Your task to perform on an android device: What's on my calendar tomorrow? Image 0: 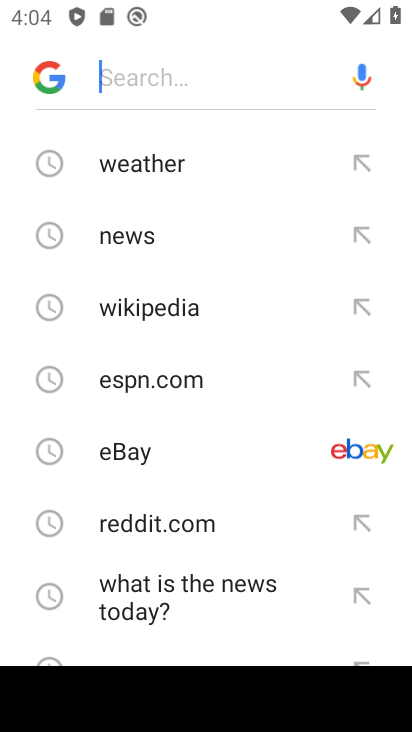
Step 0: press home button
Your task to perform on an android device: What's on my calendar tomorrow? Image 1: 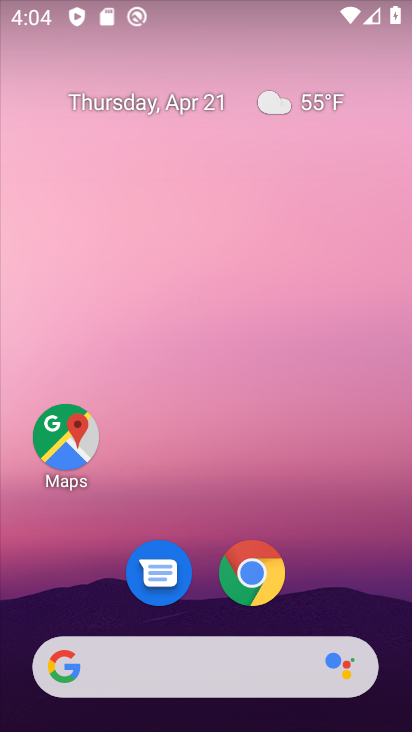
Step 1: drag from (354, 608) to (359, 204)
Your task to perform on an android device: What's on my calendar tomorrow? Image 2: 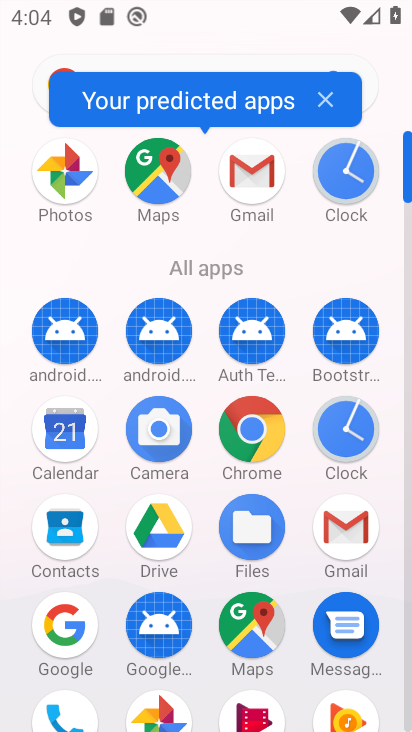
Step 2: click (59, 436)
Your task to perform on an android device: What's on my calendar tomorrow? Image 3: 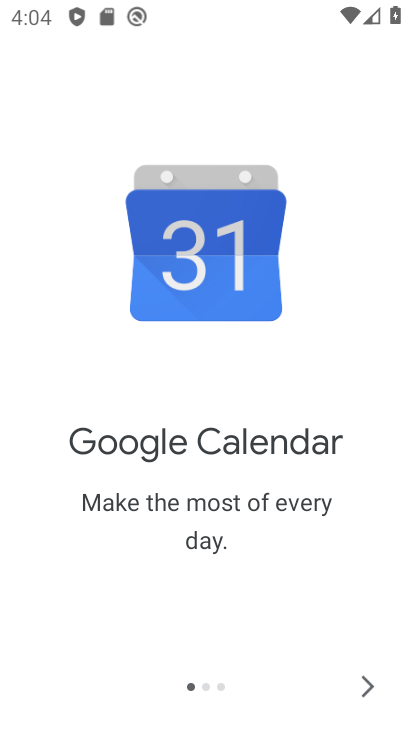
Step 3: click (365, 685)
Your task to perform on an android device: What's on my calendar tomorrow? Image 4: 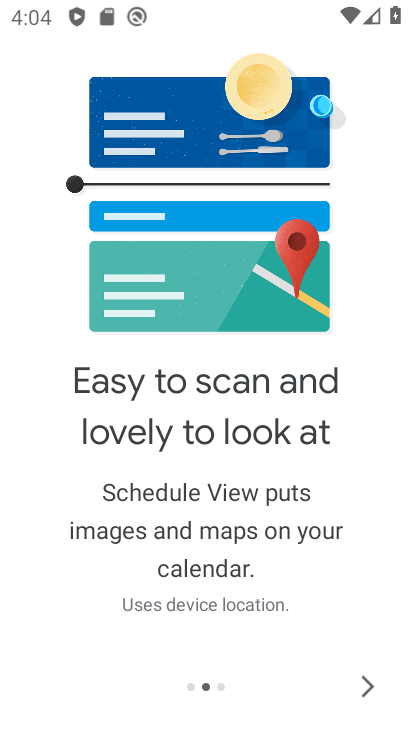
Step 4: click (365, 685)
Your task to perform on an android device: What's on my calendar tomorrow? Image 5: 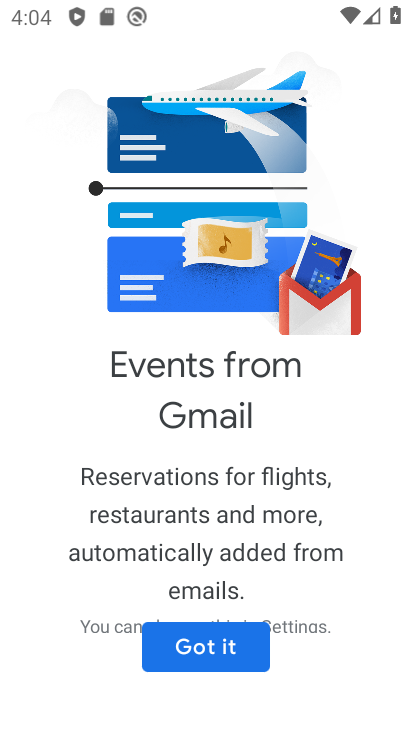
Step 5: click (232, 635)
Your task to perform on an android device: What's on my calendar tomorrow? Image 6: 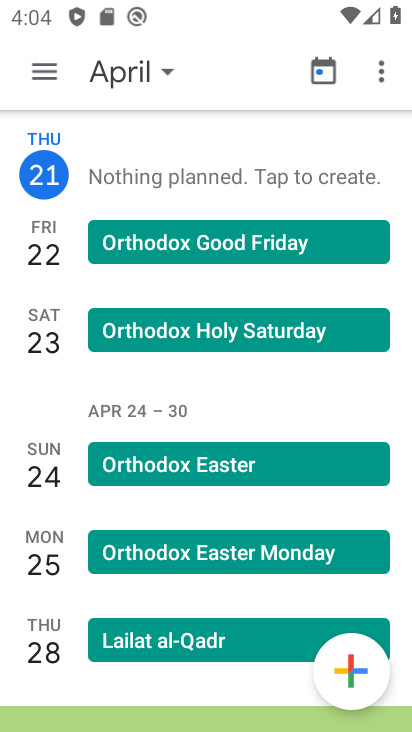
Step 6: click (157, 73)
Your task to perform on an android device: What's on my calendar tomorrow? Image 7: 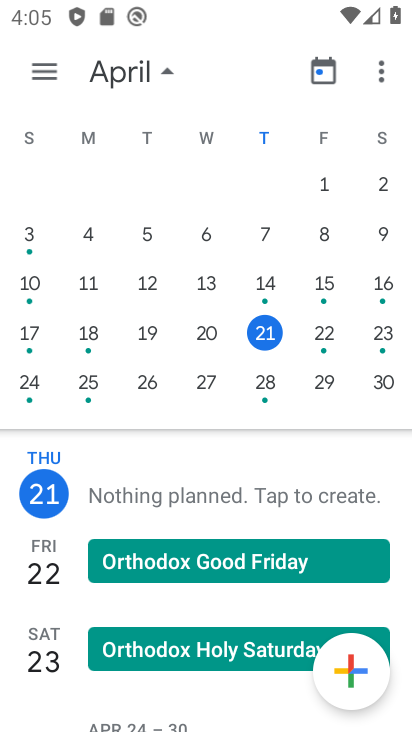
Step 7: click (315, 336)
Your task to perform on an android device: What's on my calendar tomorrow? Image 8: 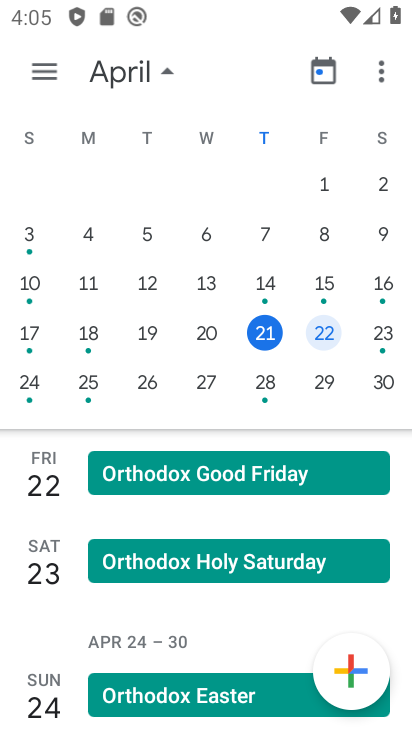
Step 8: task complete